Your task to perform on an android device: Open location settings Image 0: 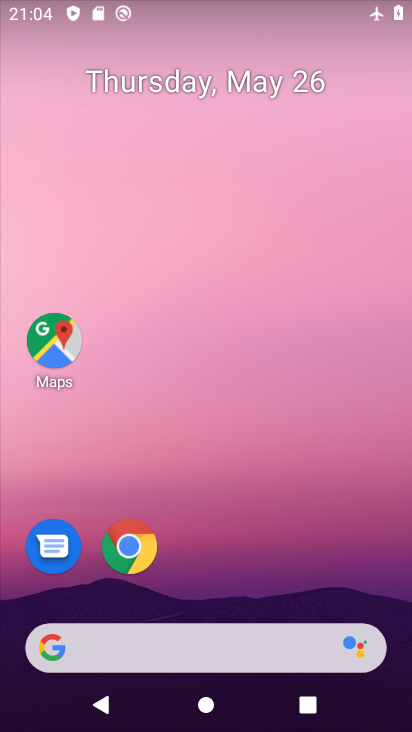
Step 0: drag from (312, 601) to (273, 296)
Your task to perform on an android device: Open location settings Image 1: 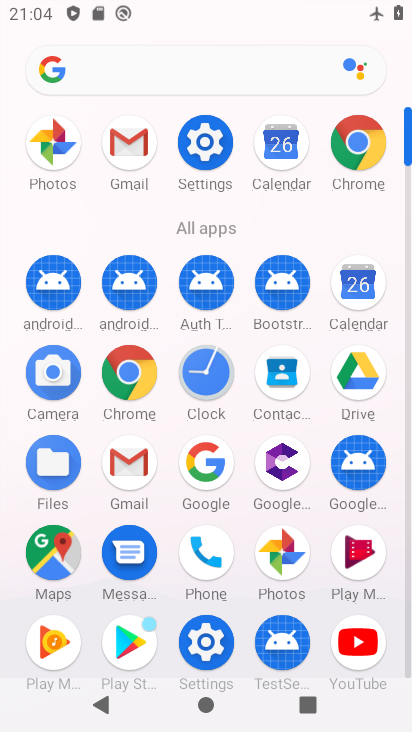
Step 1: click (213, 155)
Your task to perform on an android device: Open location settings Image 2: 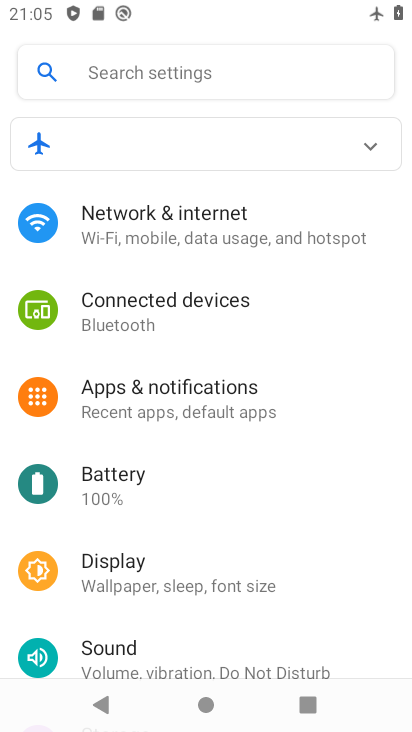
Step 2: drag from (212, 622) to (177, 424)
Your task to perform on an android device: Open location settings Image 3: 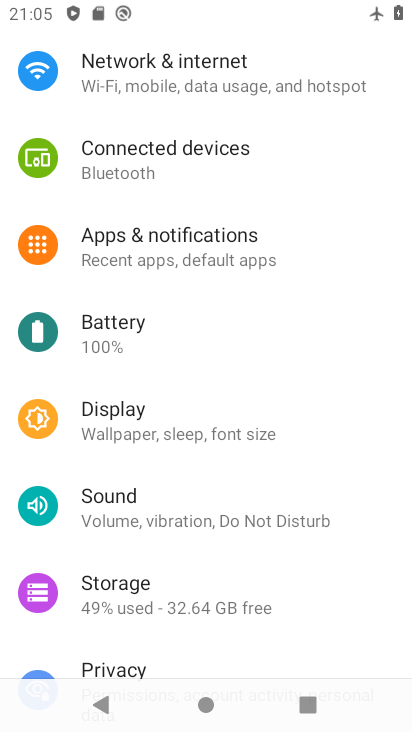
Step 3: drag from (212, 631) to (179, 344)
Your task to perform on an android device: Open location settings Image 4: 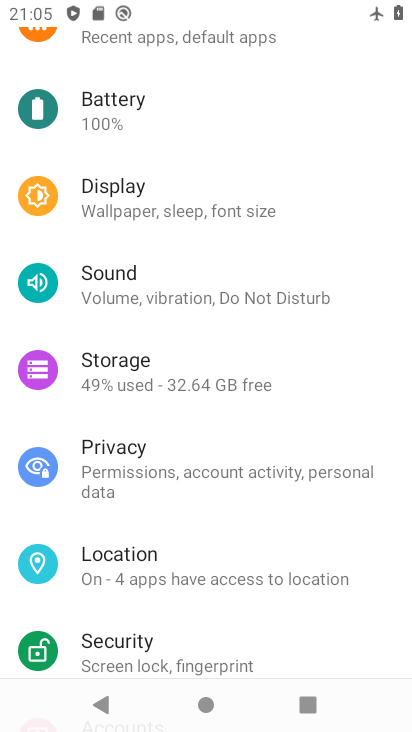
Step 4: click (205, 577)
Your task to perform on an android device: Open location settings Image 5: 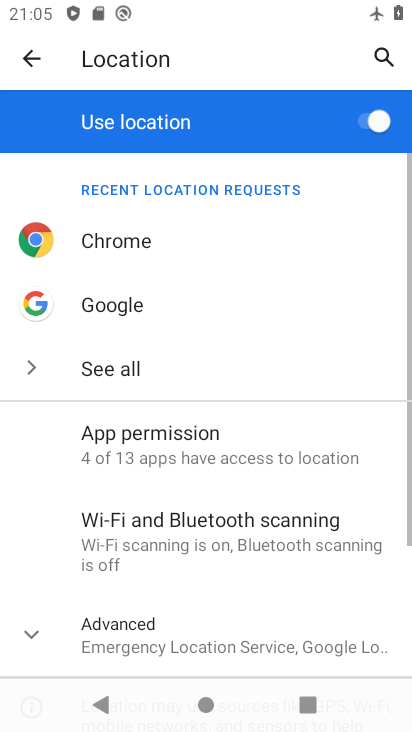
Step 5: task complete